Your task to perform on an android device: turn notification dots on Image 0: 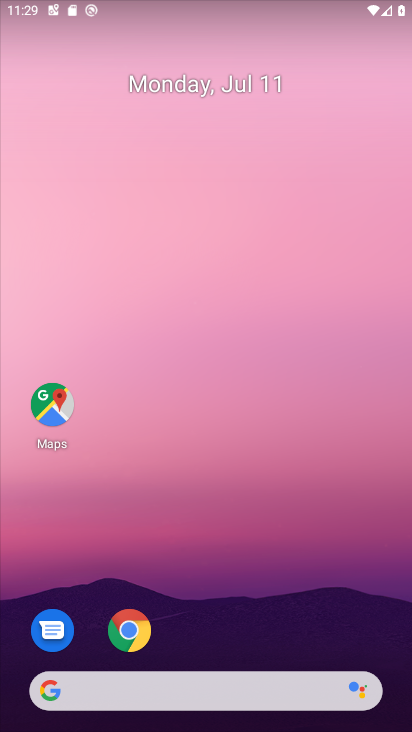
Step 0: drag from (210, 622) to (242, 108)
Your task to perform on an android device: turn notification dots on Image 1: 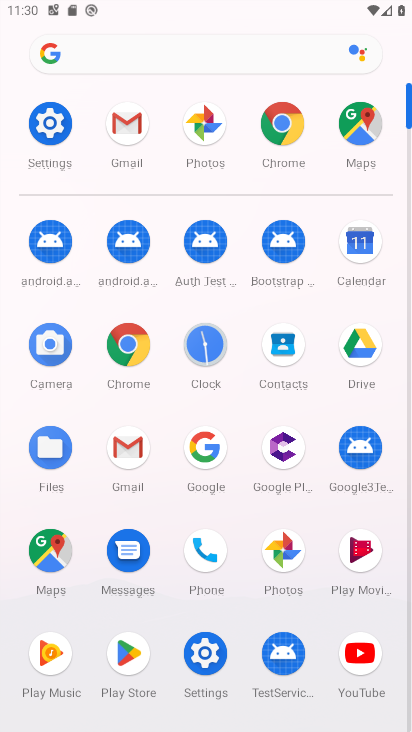
Step 1: click (199, 667)
Your task to perform on an android device: turn notification dots on Image 2: 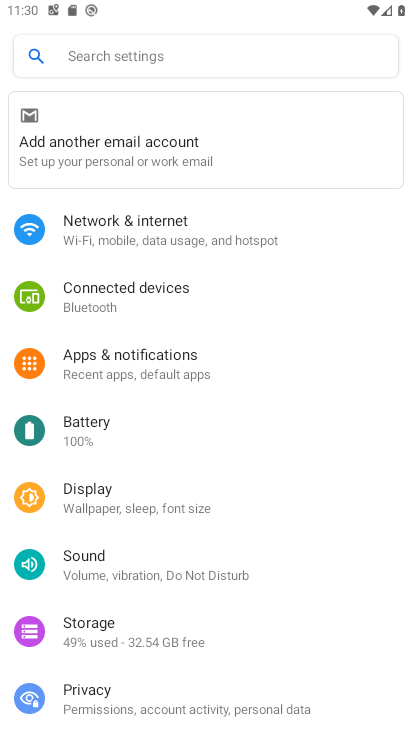
Step 2: click (163, 366)
Your task to perform on an android device: turn notification dots on Image 3: 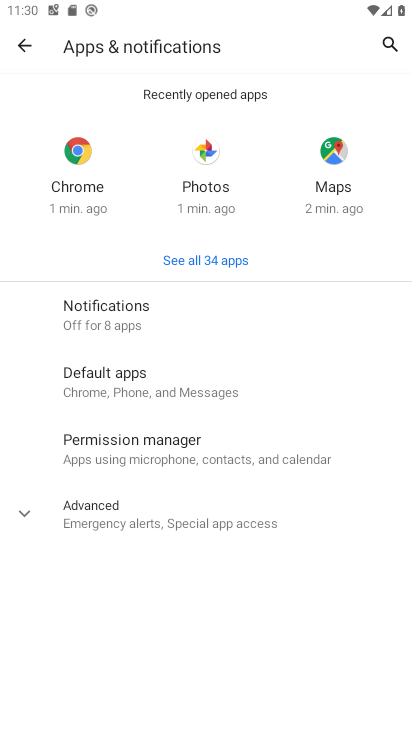
Step 3: click (102, 321)
Your task to perform on an android device: turn notification dots on Image 4: 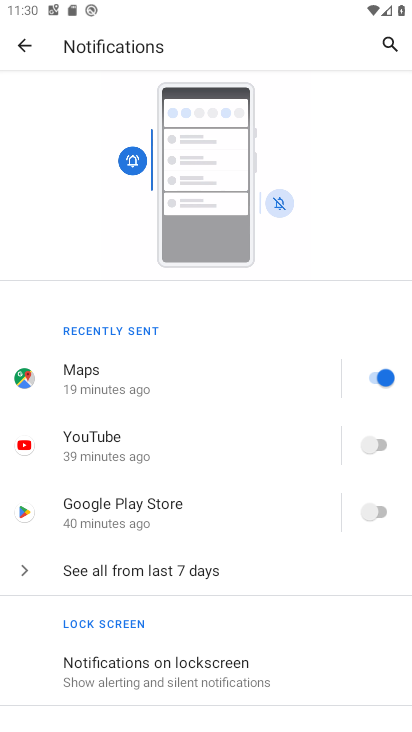
Step 4: drag from (156, 669) to (197, 340)
Your task to perform on an android device: turn notification dots on Image 5: 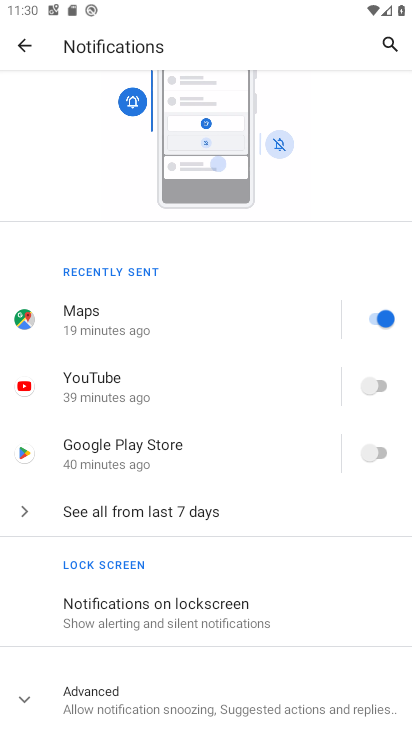
Step 5: click (113, 694)
Your task to perform on an android device: turn notification dots on Image 6: 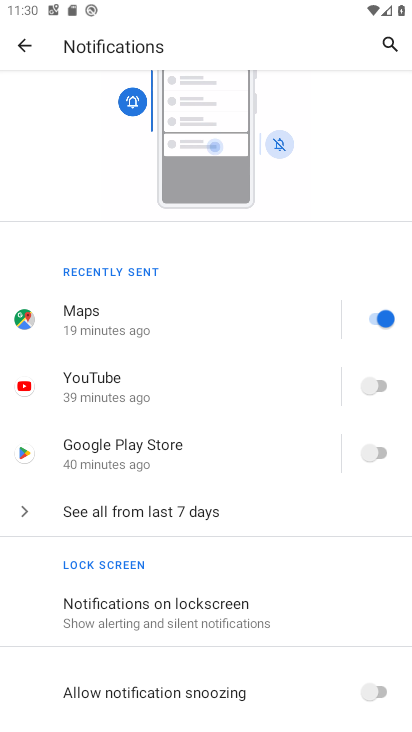
Step 6: task complete